Your task to perform on an android device: Clear the cart on costco.com. Add bose quietcomfort 35 to the cart on costco.com Image 0: 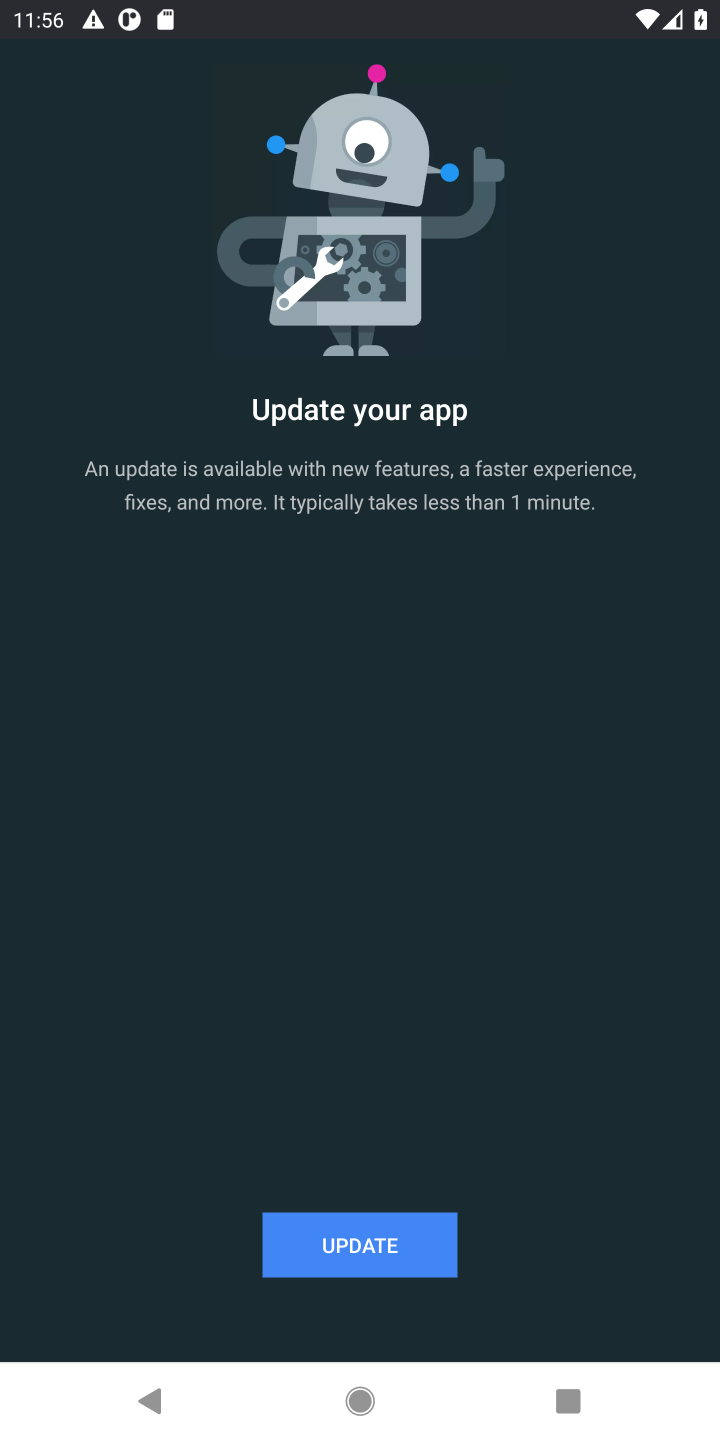
Step 0: press home button
Your task to perform on an android device: Clear the cart on costco.com. Add bose quietcomfort 35 to the cart on costco.com Image 1: 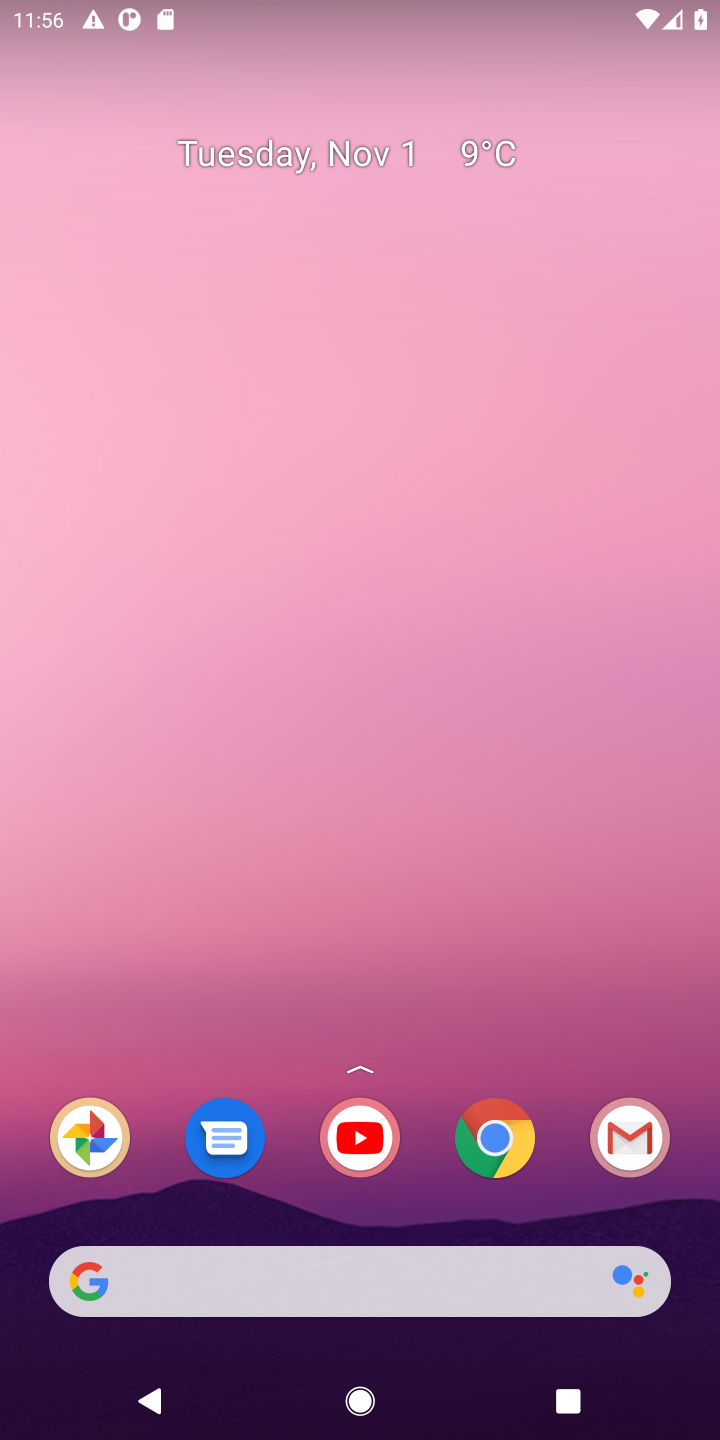
Step 1: click (348, 1303)
Your task to perform on an android device: Clear the cart on costco.com. Add bose quietcomfort 35 to the cart on costco.com Image 2: 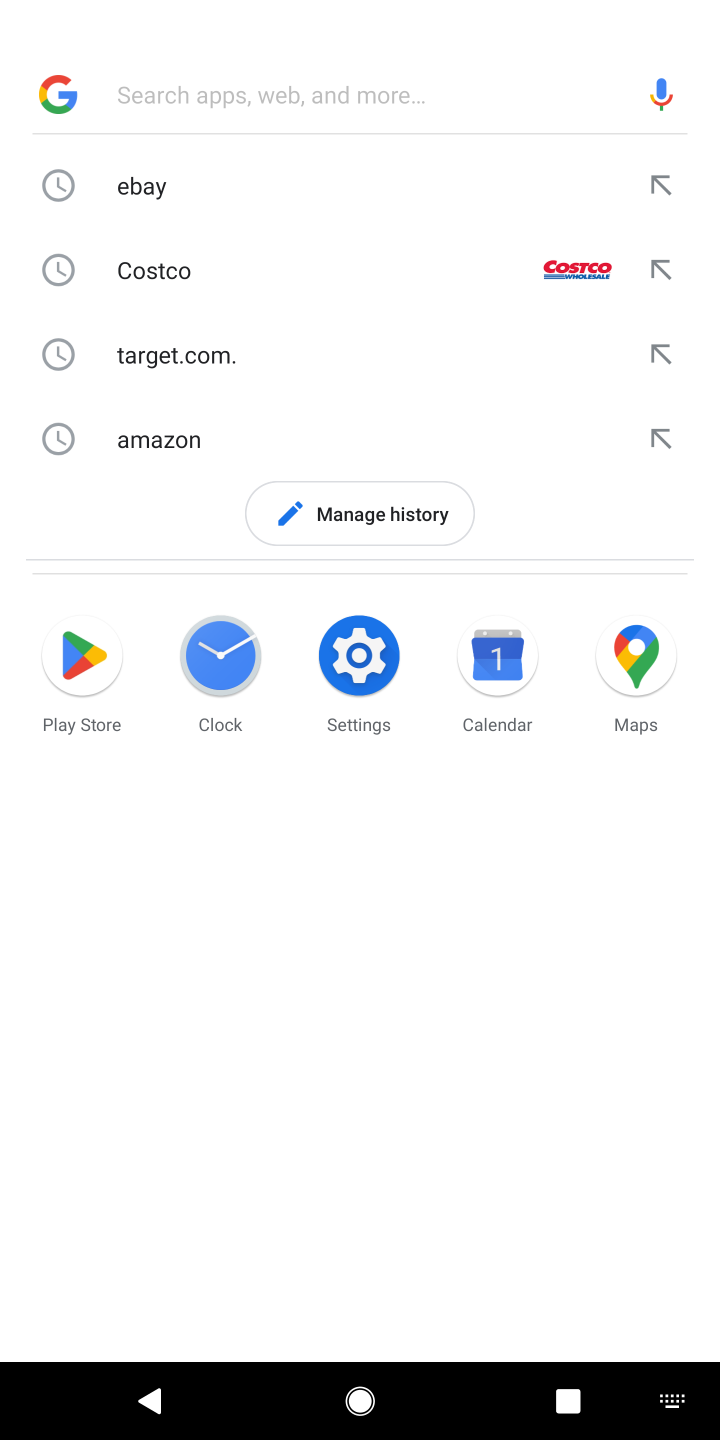
Step 2: click (181, 289)
Your task to perform on an android device: Clear the cart on costco.com. Add bose quietcomfort 35 to the cart on costco.com Image 3: 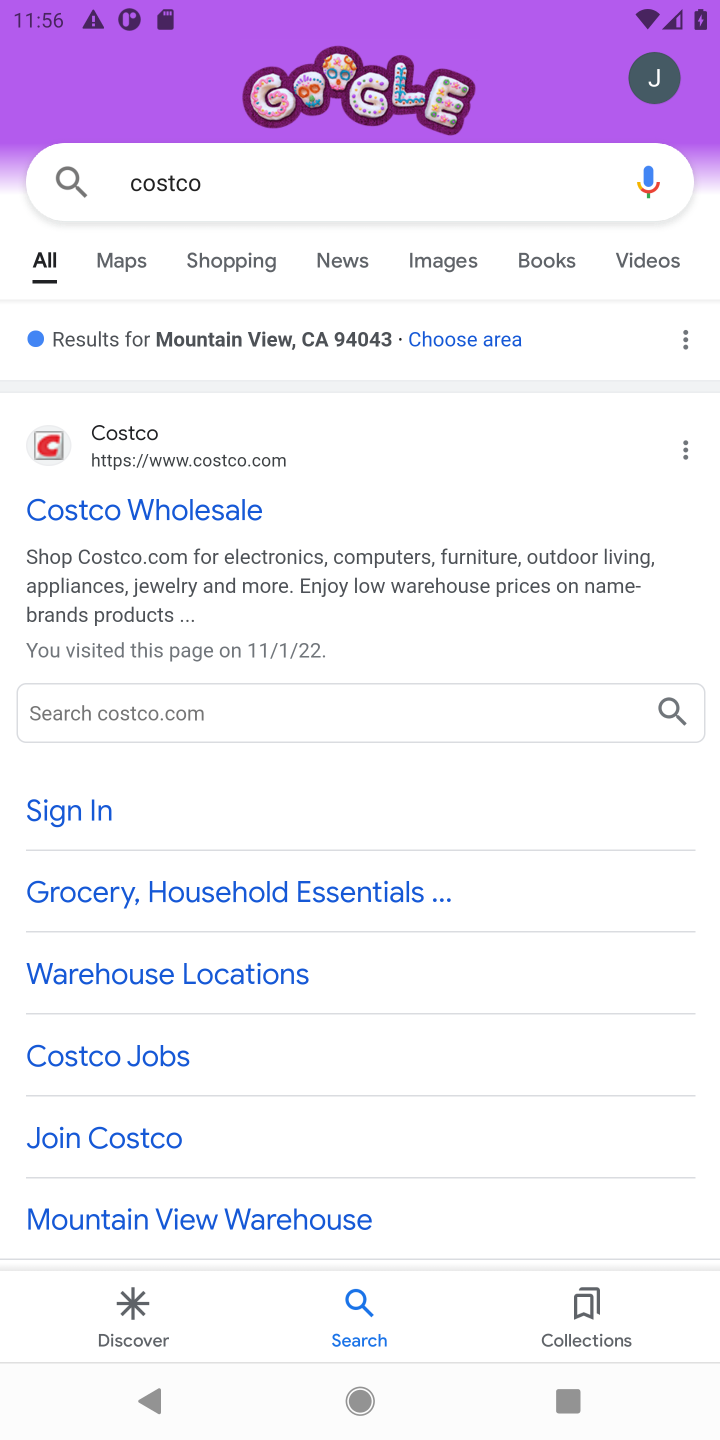
Step 3: click (62, 516)
Your task to perform on an android device: Clear the cart on costco.com. Add bose quietcomfort 35 to the cart on costco.com Image 4: 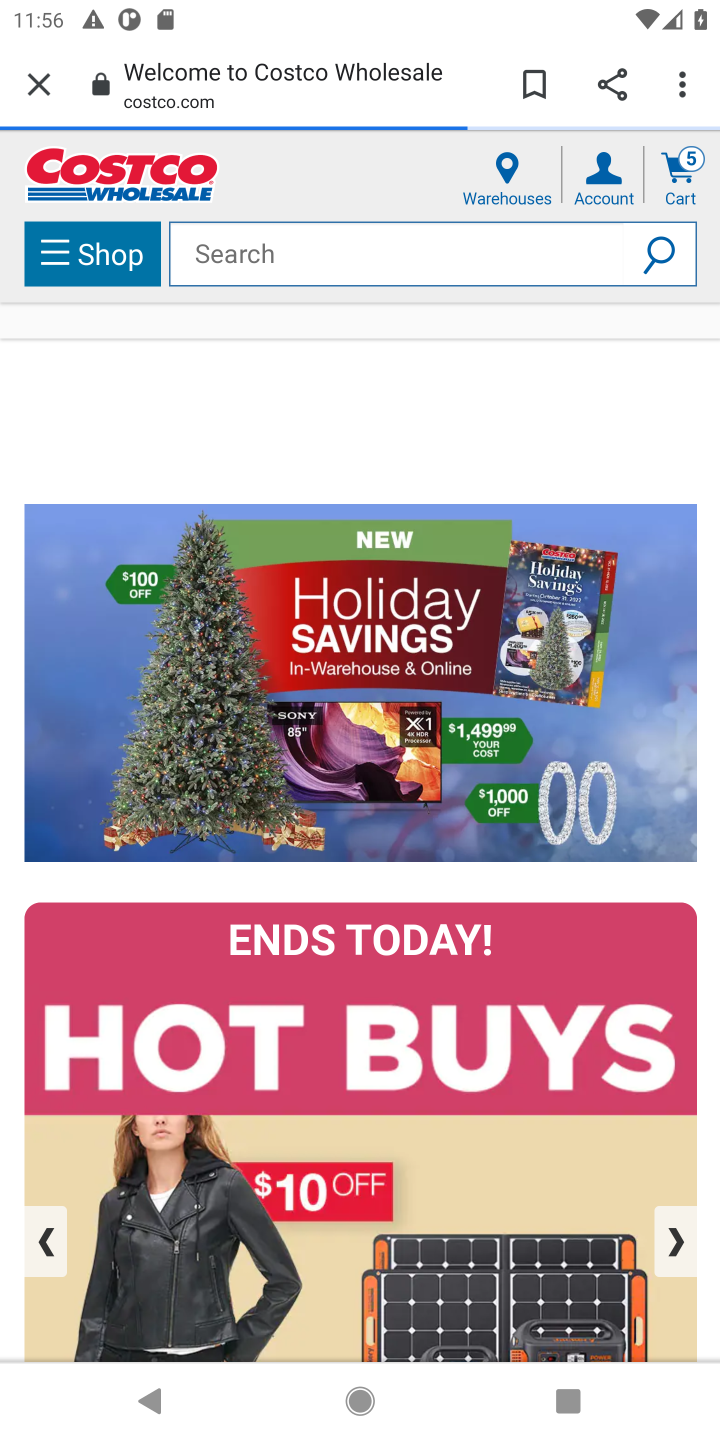
Step 4: click (338, 238)
Your task to perform on an android device: Clear the cart on costco.com. Add bose quietcomfort 35 to the cart on costco.com Image 5: 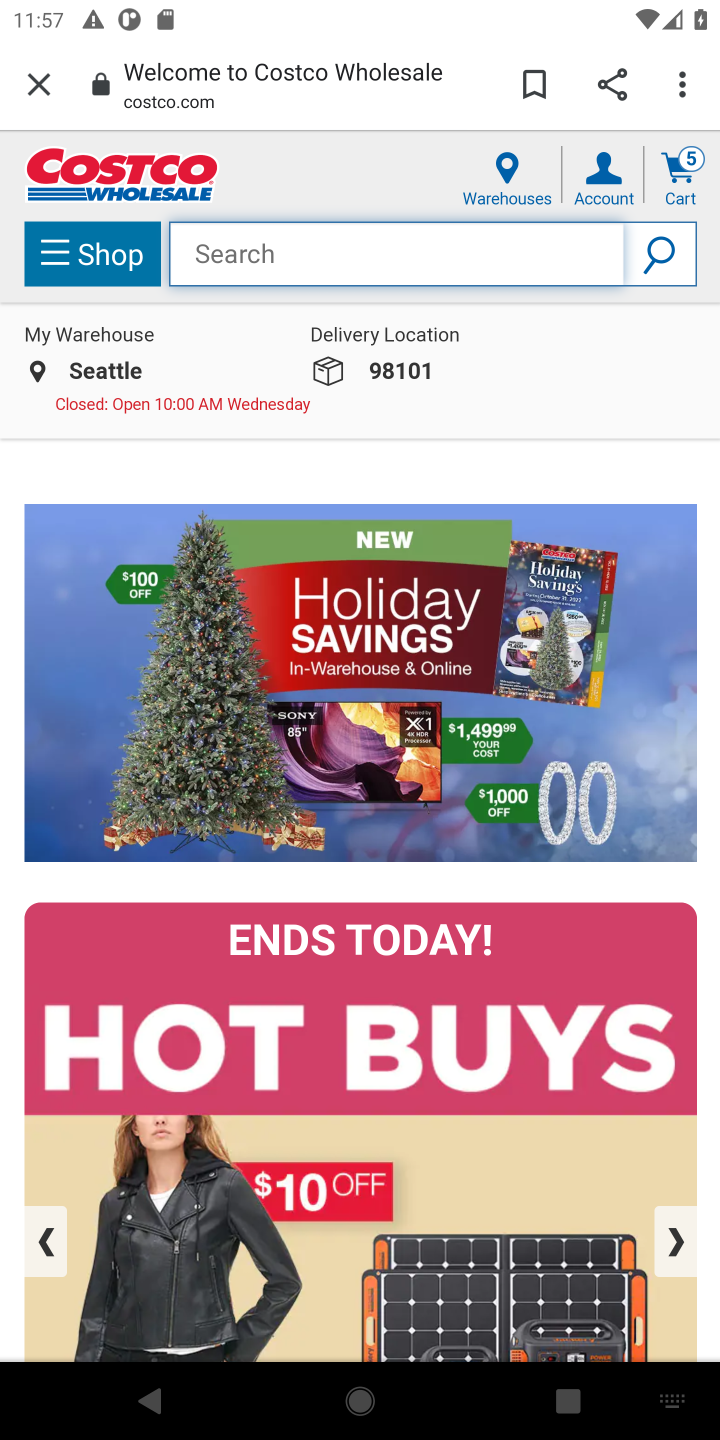
Step 5: type "bose quietcomfort"
Your task to perform on an android device: Clear the cart on costco.com. Add bose quietcomfort 35 to the cart on costco.com Image 6: 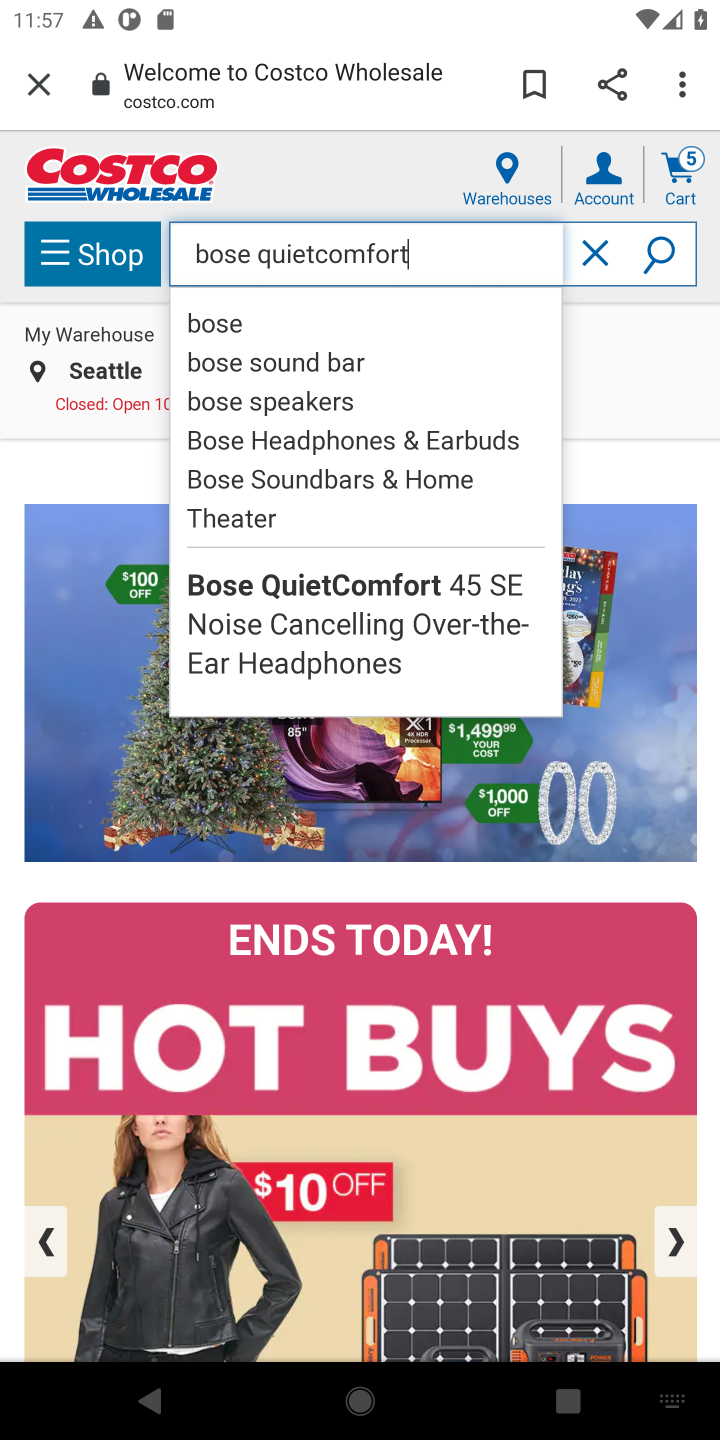
Step 6: click (661, 236)
Your task to perform on an android device: Clear the cart on costco.com. Add bose quietcomfort 35 to the cart on costco.com Image 7: 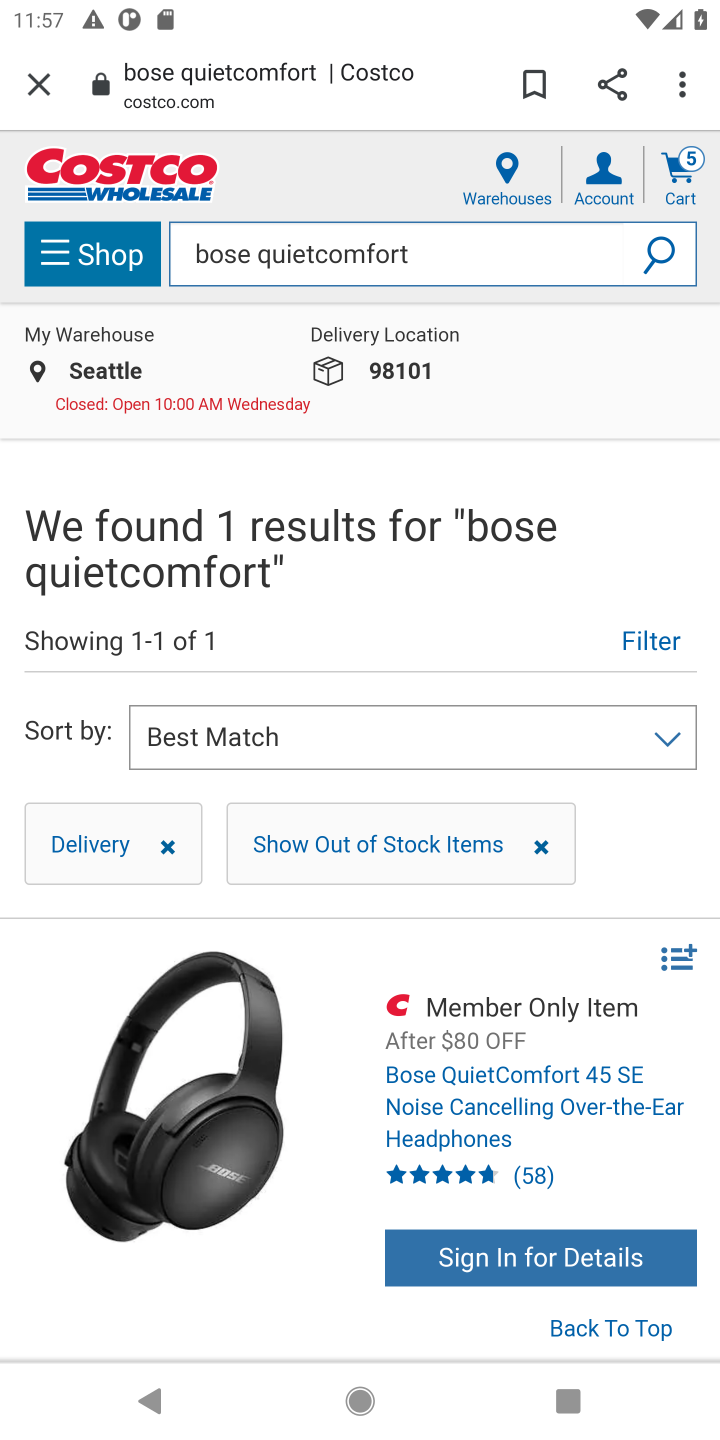
Step 7: drag from (505, 961) to (433, 365)
Your task to perform on an android device: Clear the cart on costco.com. Add bose quietcomfort 35 to the cart on costco.com Image 8: 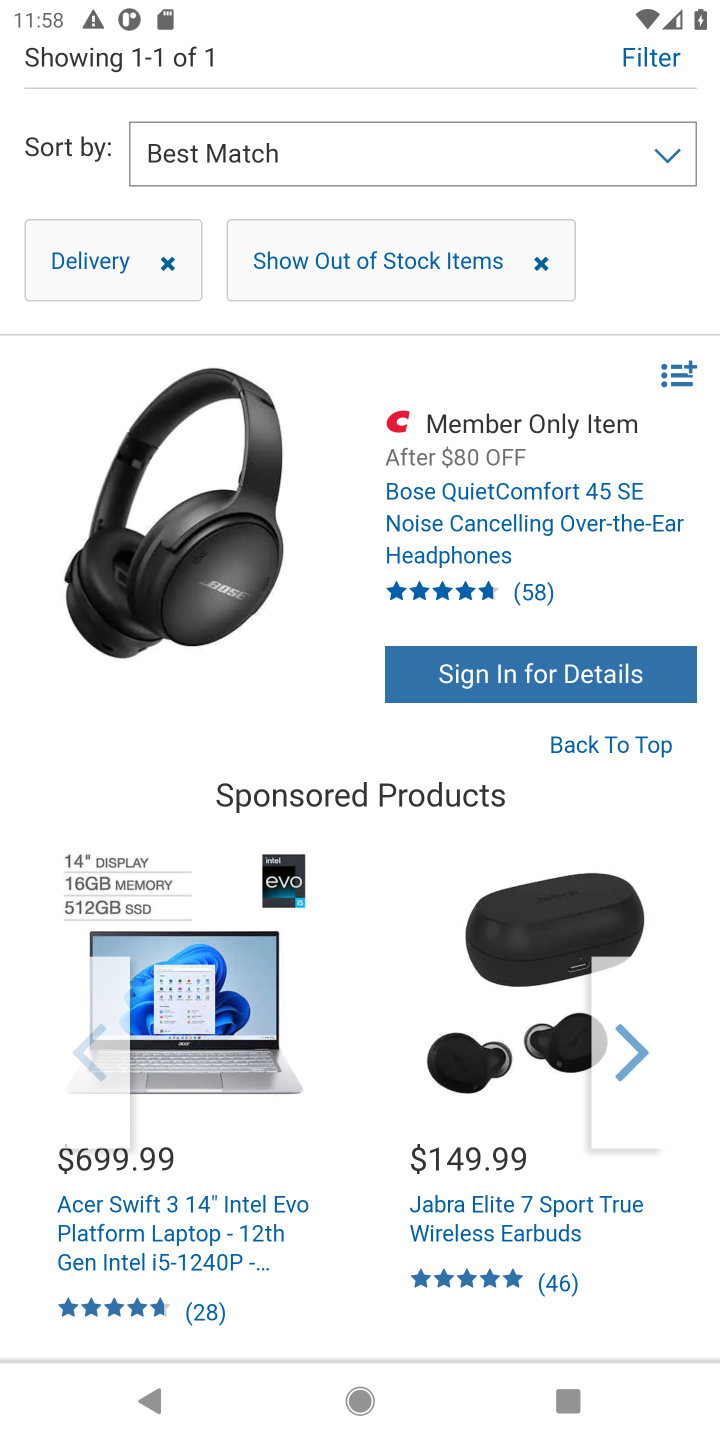
Step 8: drag from (429, 771) to (450, 501)
Your task to perform on an android device: Clear the cart on costco.com. Add bose quietcomfort 35 to the cart on costco.com Image 9: 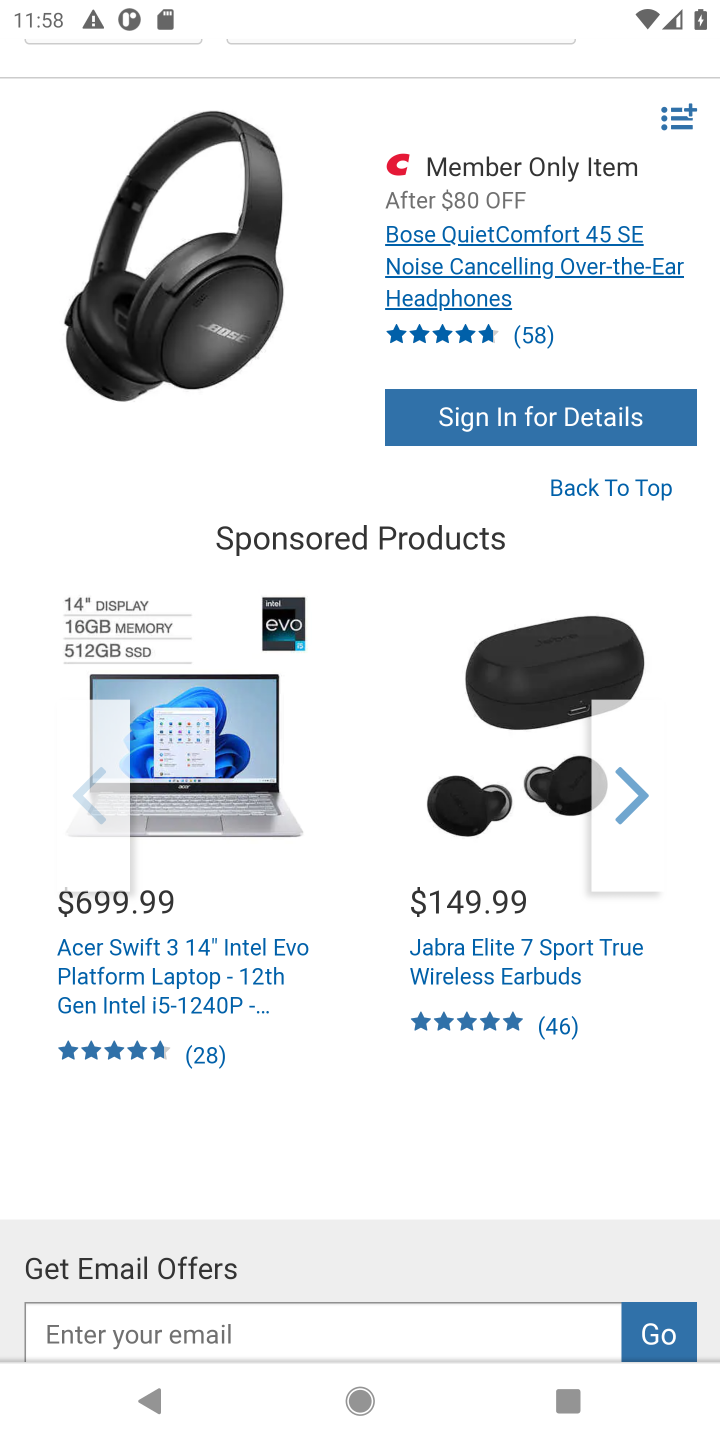
Step 9: drag from (389, 1077) to (378, 460)
Your task to perform on an android device: Clear the cart on costco.com. Add bose quietcomfort 35 to the cart on costco.com Image 10: 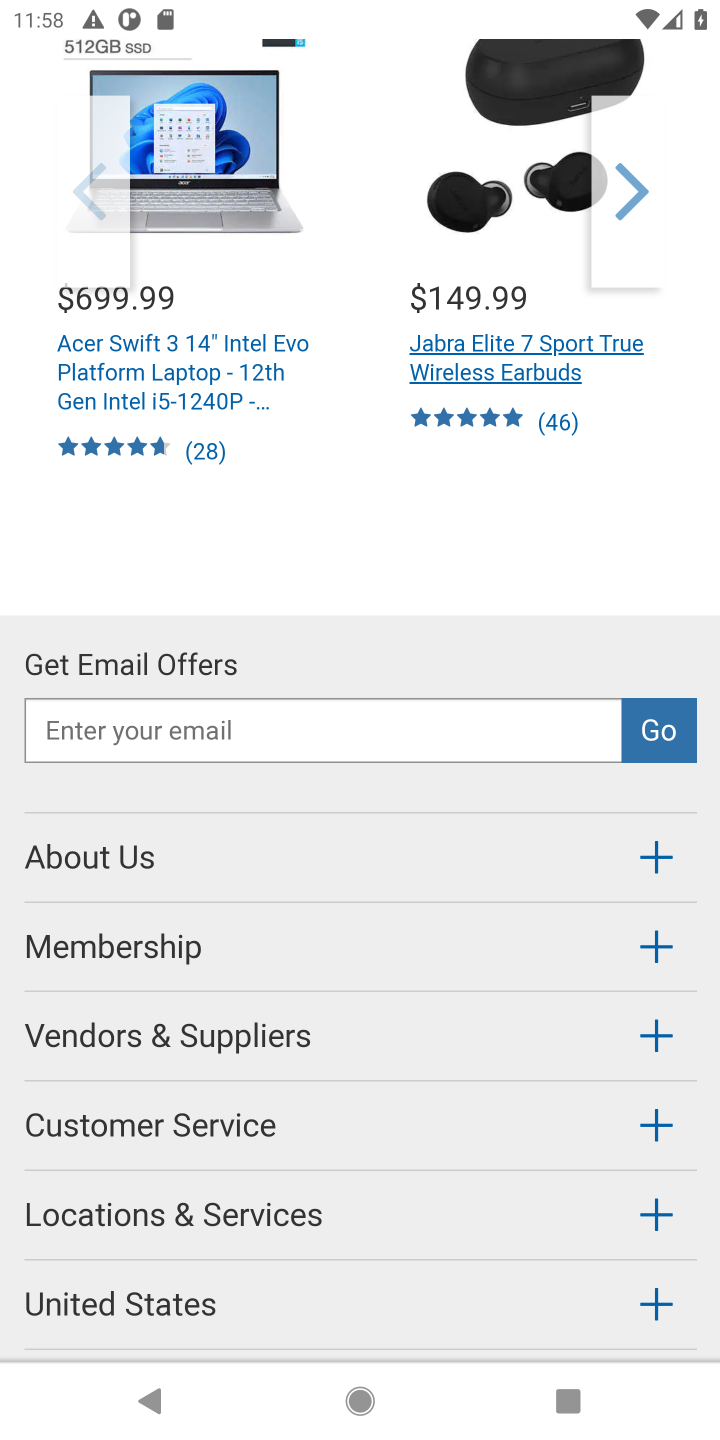
Step 10: drag from (382, 492) to (515, 1072)
Your task to perform on an android device: Clear the cart on costco.com. Add bose quietcomfort 35 to the cart on costco.com Image 11: 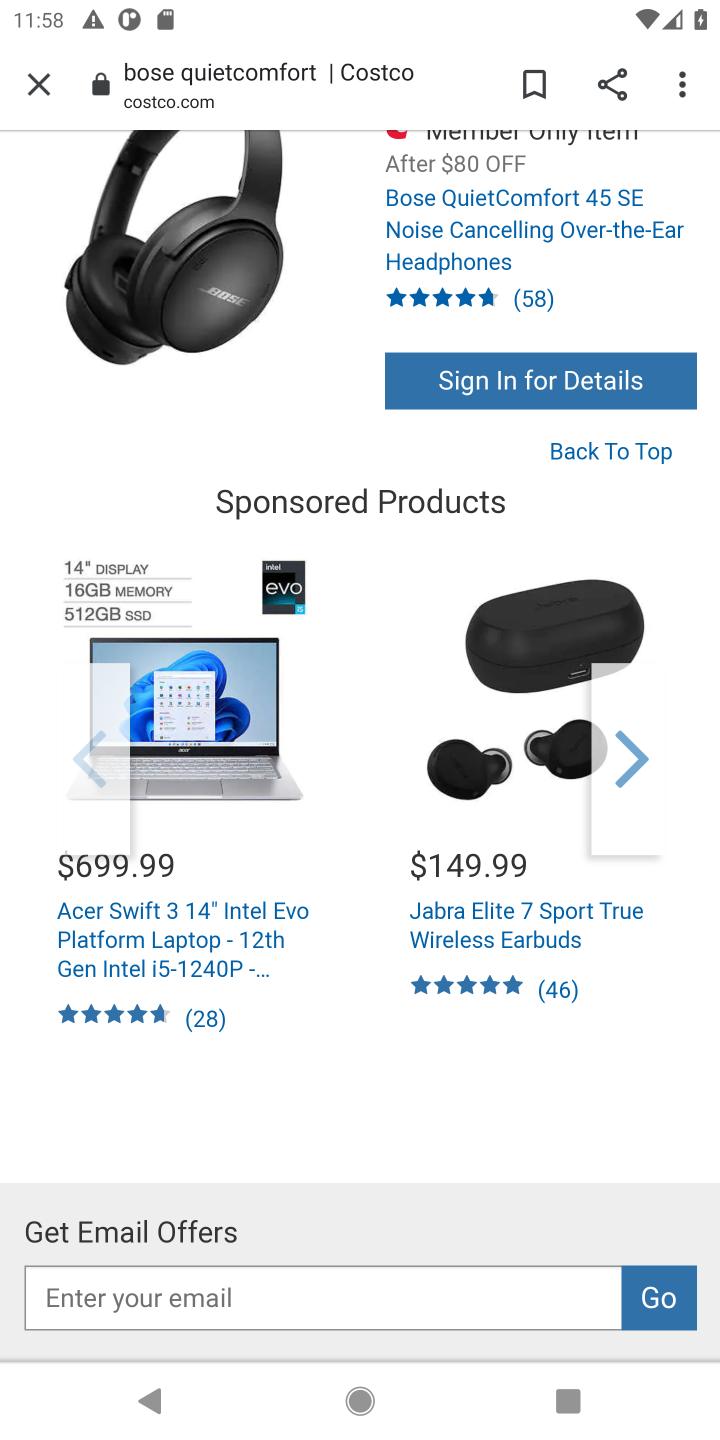
Step 11: drag from (302, 778) to (346, 1008)
Your task to perform on an android device: Clear the cart on costco.com. Add bose quietcomfort 35 to the cart on costco.com Image 12: 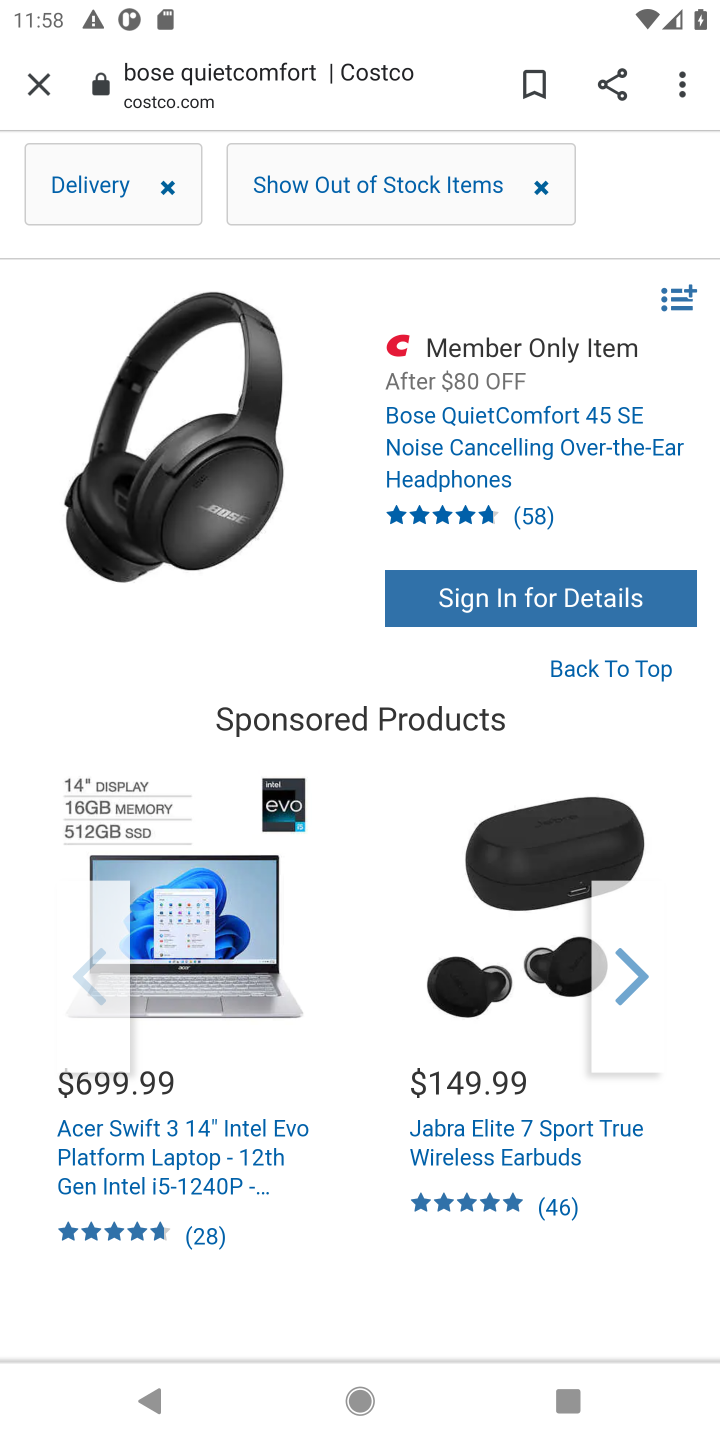
Step 12: drag from (351, 553) to (475, 974)
Your task to perform on an android device: Clear the cart on costco.com. Add bose quietcomfort 35 to the cart on costco.com Image 13: 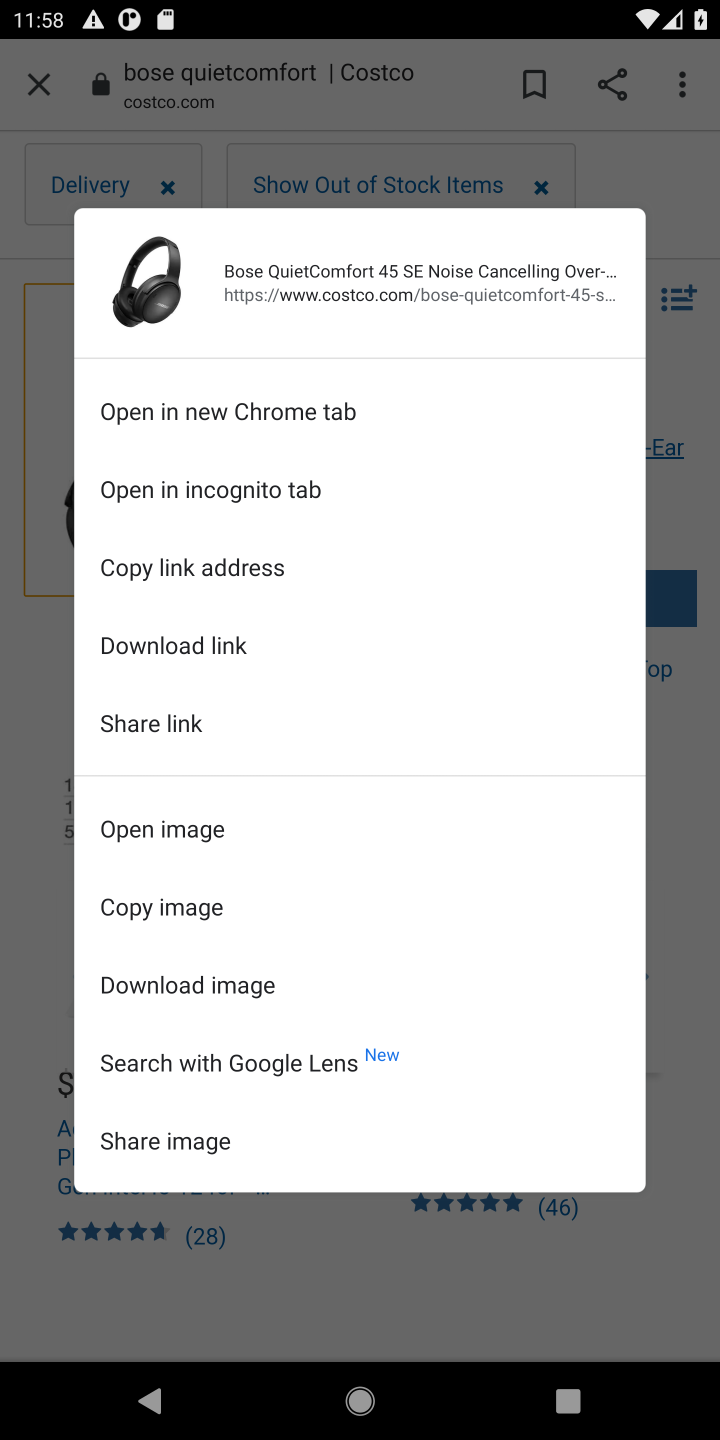
Step 13: click (674, 403)
Your task to perform on an android device: Clear the cart on costco.com. Add bose quietcomfort 35 to the cart on costco.com Image 14: 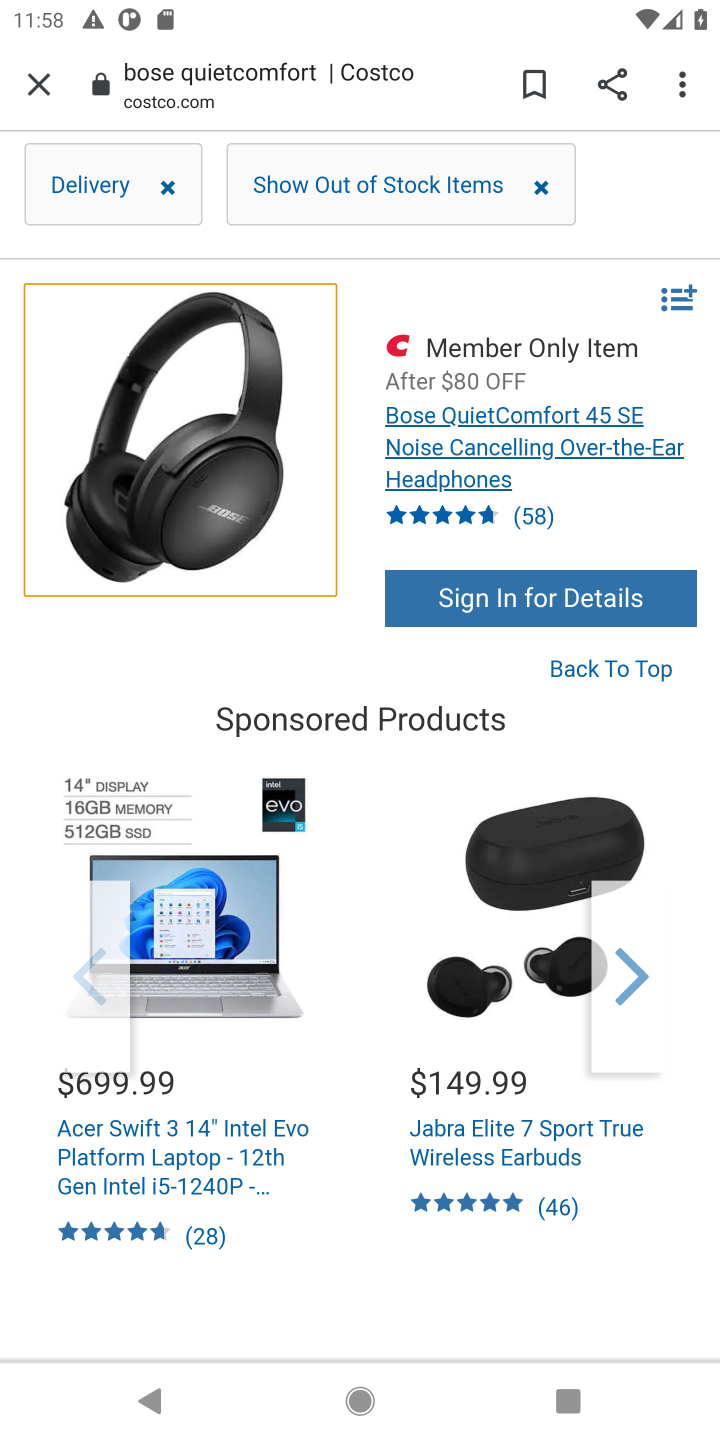
Step 14: drag from (335, 468) to (320, 967)
Your task to perform on an android device: Clear the cart on costco.com. Add bose quietcomfort 35 to the cart on costco.com Image 15: 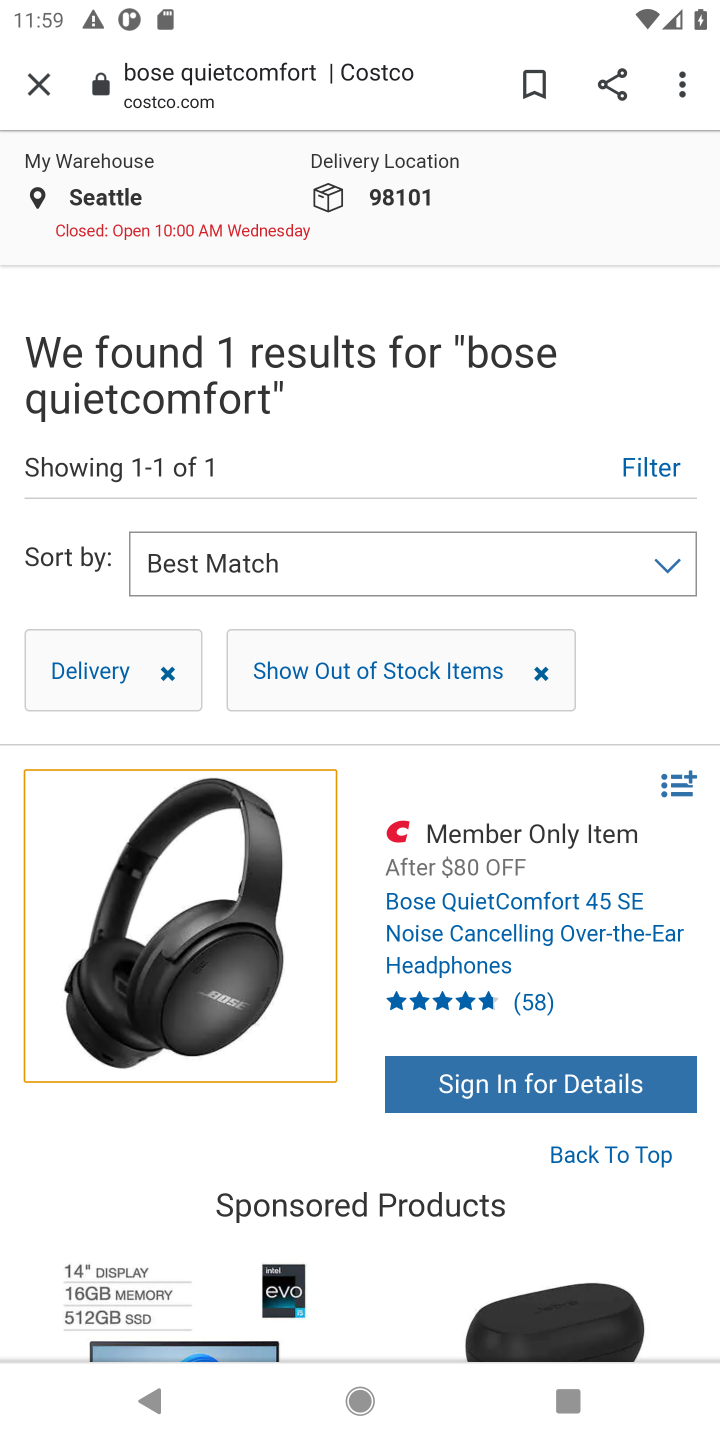
Step 15: click (473, 1097)
Your task to perform on an android device: Clear the cart on costco.com. Add bose quietcomfort 35 to the cart on costco.com Image 16: 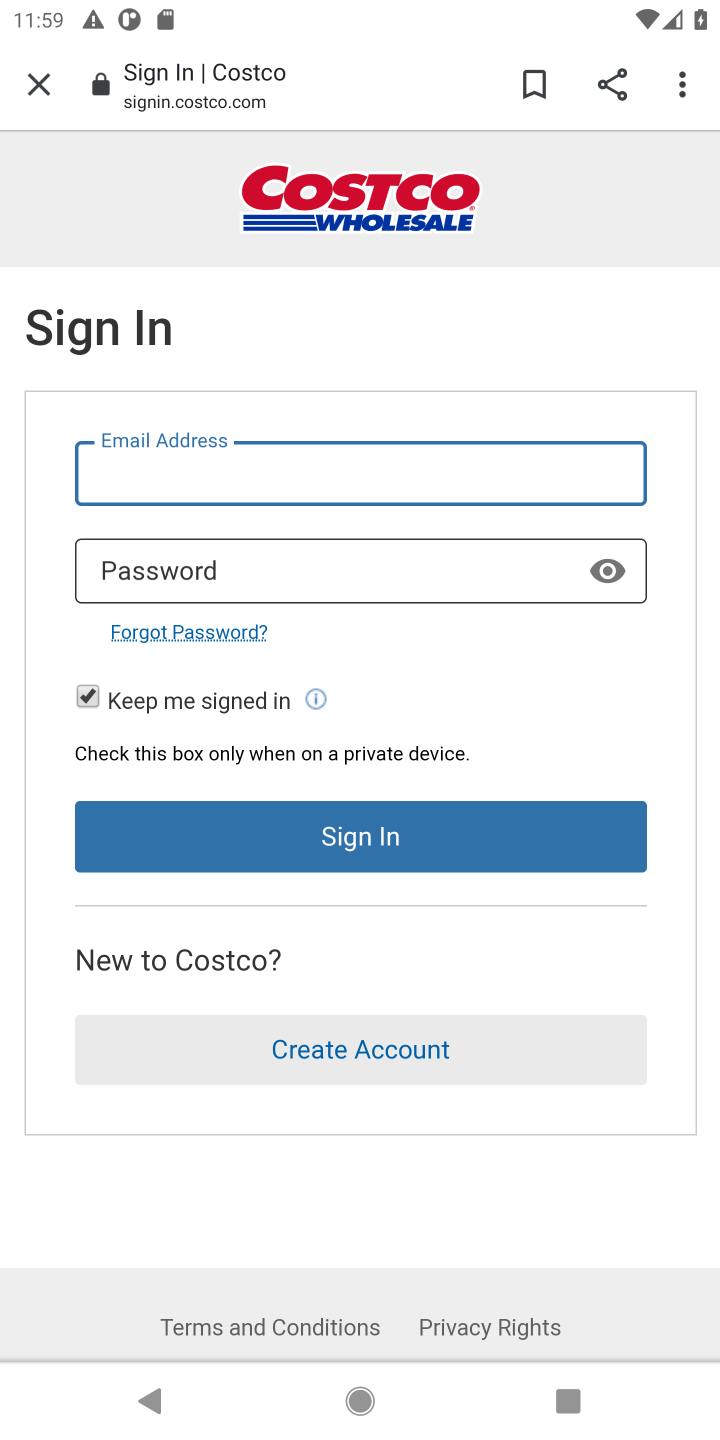
Step 16: task complete